Your task to perform on an android device: Go to settings Image 0: 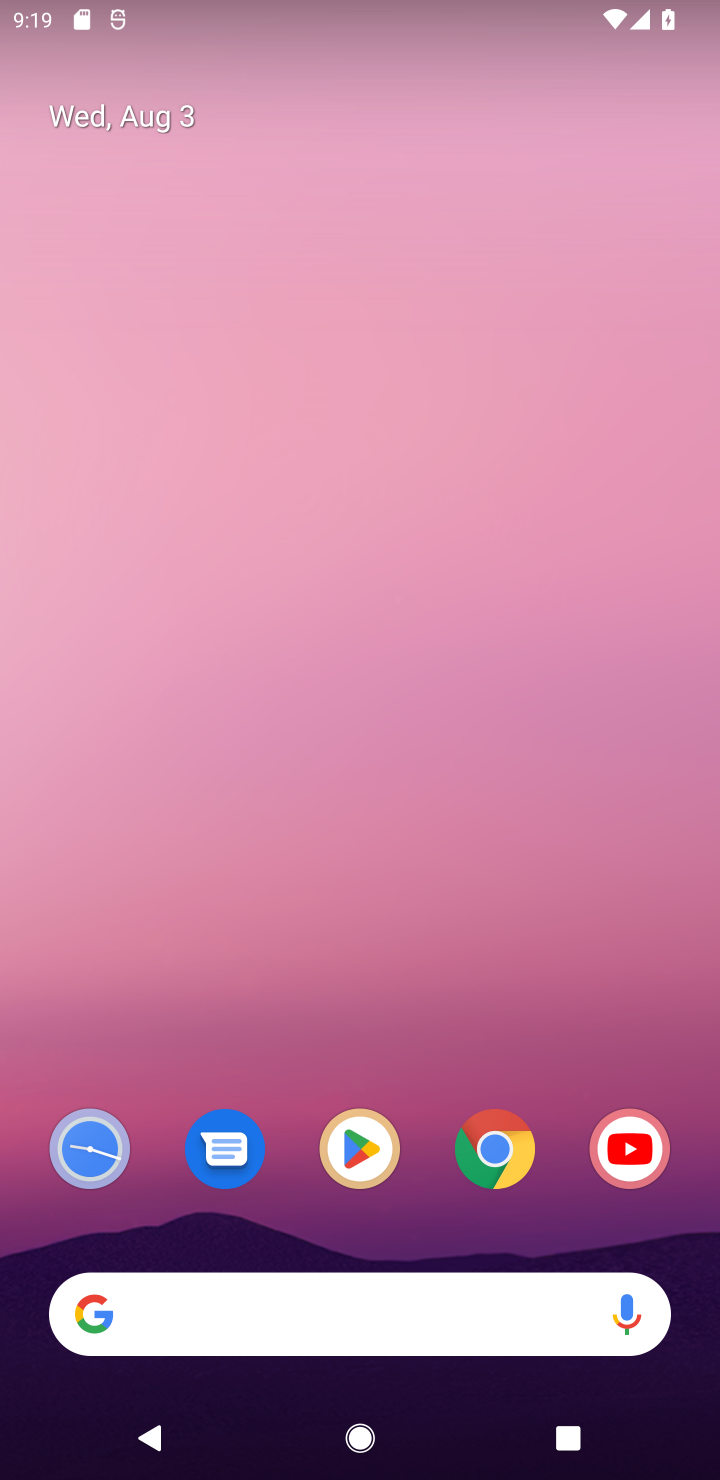
Step 0: drag from (481, 1046) to (389, 8)
Your task to perform on an android device: Go to settings Image 1: 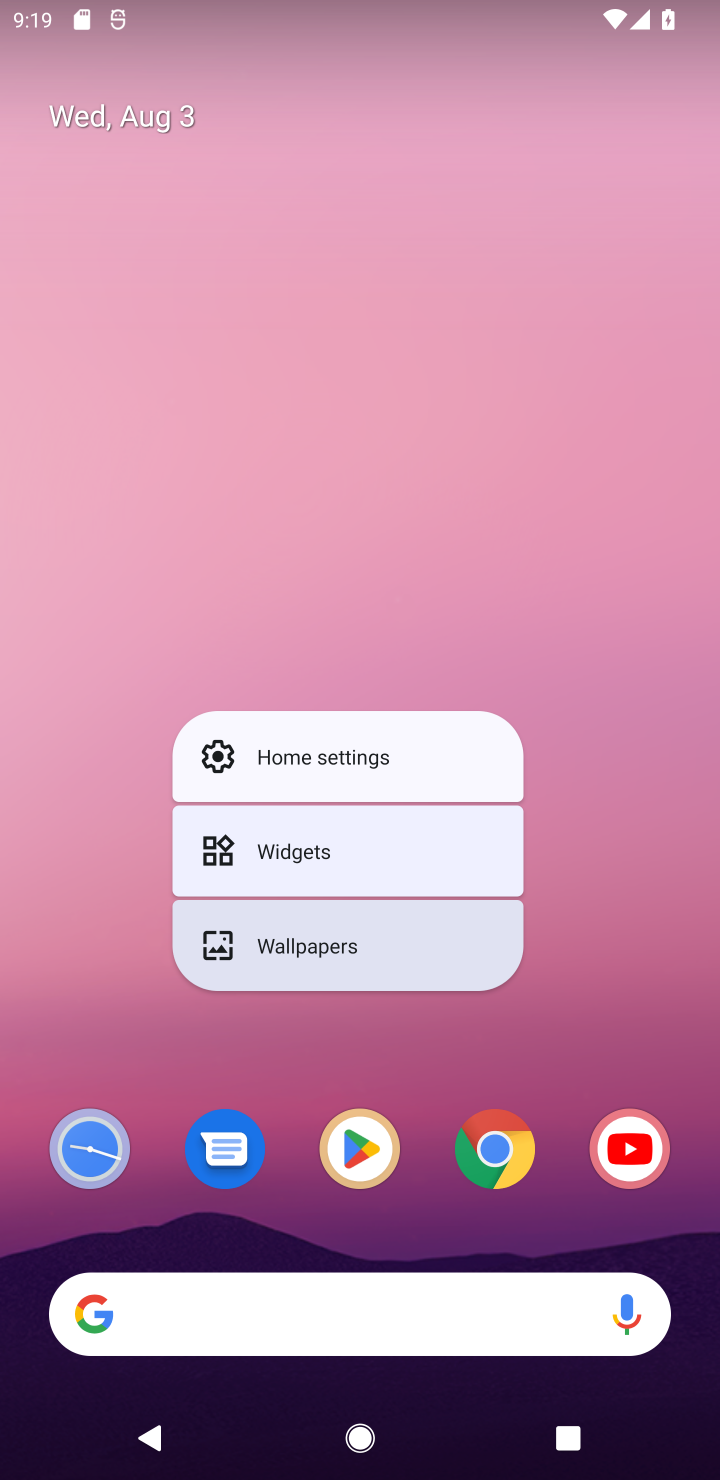
Step 1: drag from (710, 1204) to (467, 403)
Your task to perform on an android device: Go to settings Image 2: 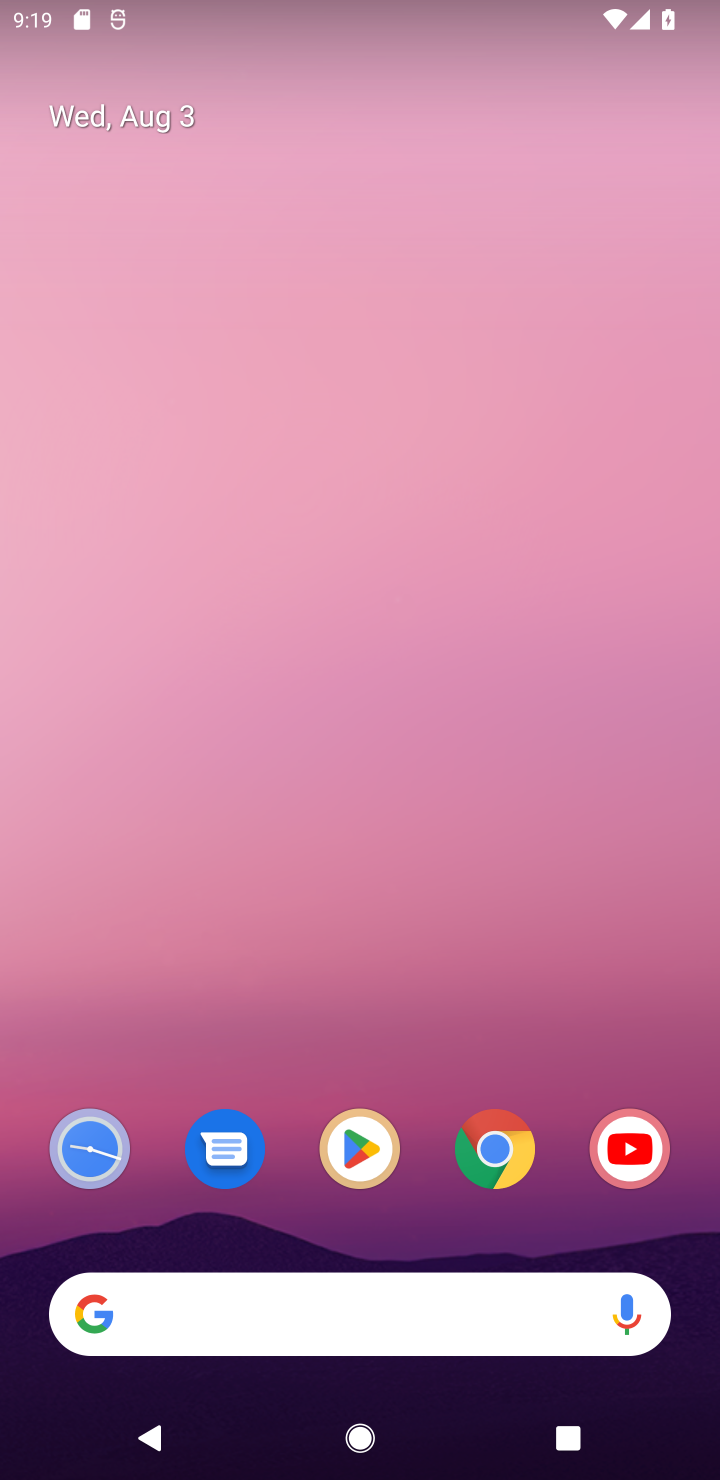
Step 2: drag from (440, 1214) to (184, 3)
Your task to perform on an android device: Go to settings Image 3: 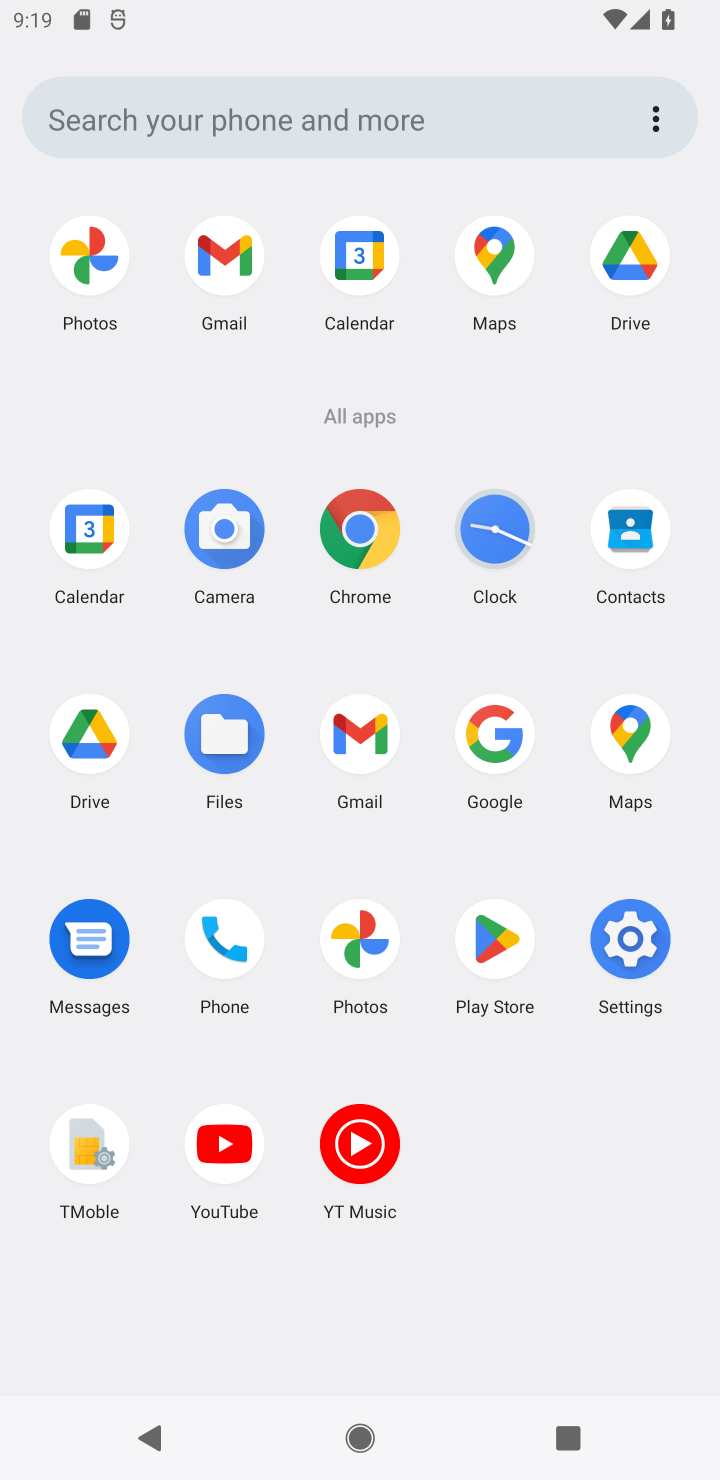
Step 3: click (637, 945)
Your task to perform on an android device: Go to settings Image 4: 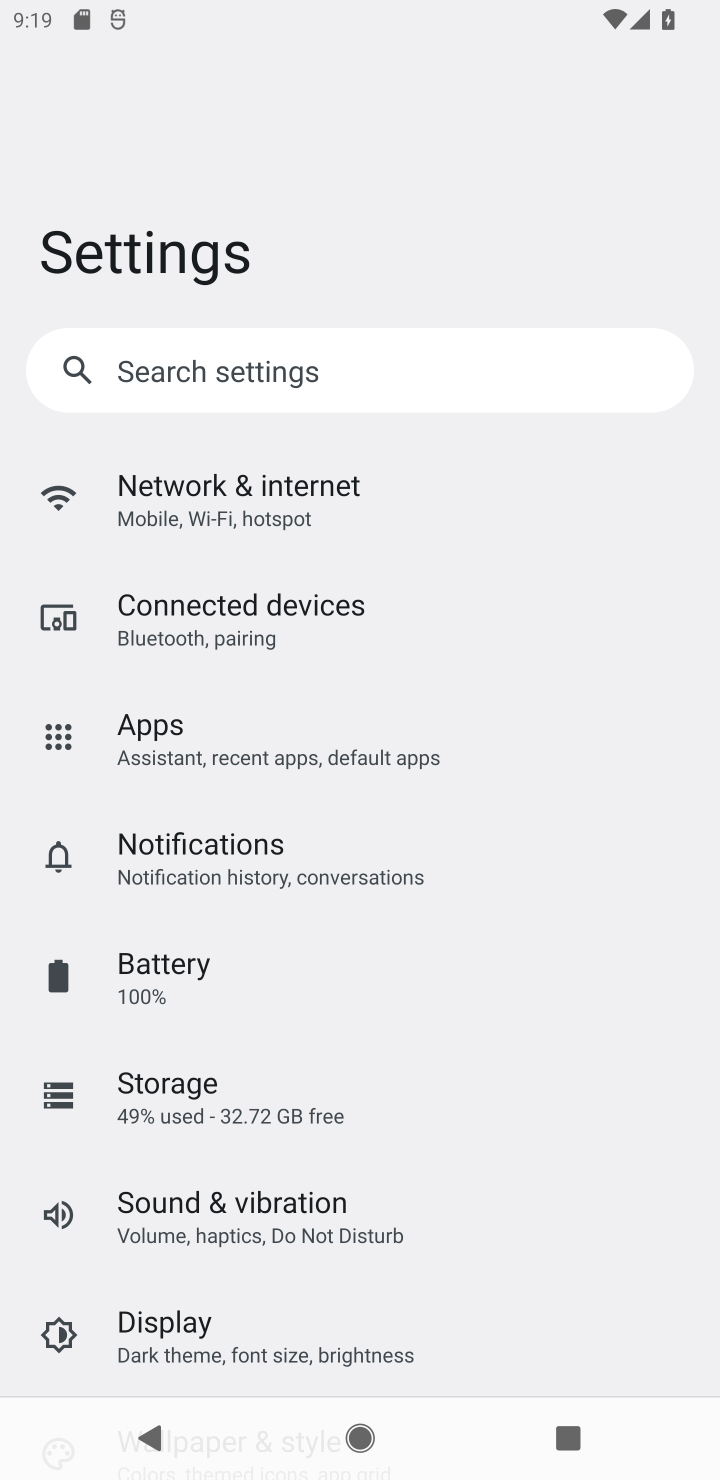
Step 4: task complete